Your task to perform on an android device: Do I have any events this weekend? Image 0: 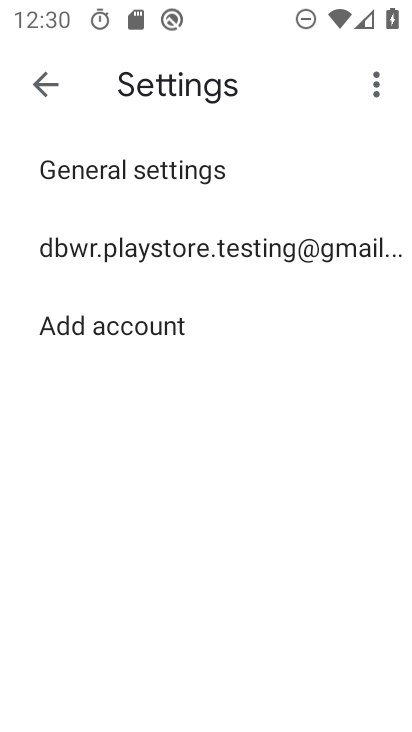
Step 0: press home button
Your task to perform on an android device: Do I have any events this weekend? Image 1: 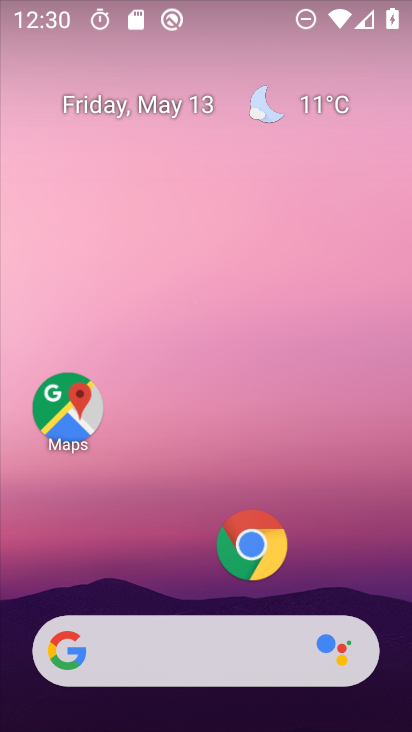
Step 1: drag from (199, 595) to (216, 67)
Your task to perform on an android device: Do I have any events this weekend? Image 2: 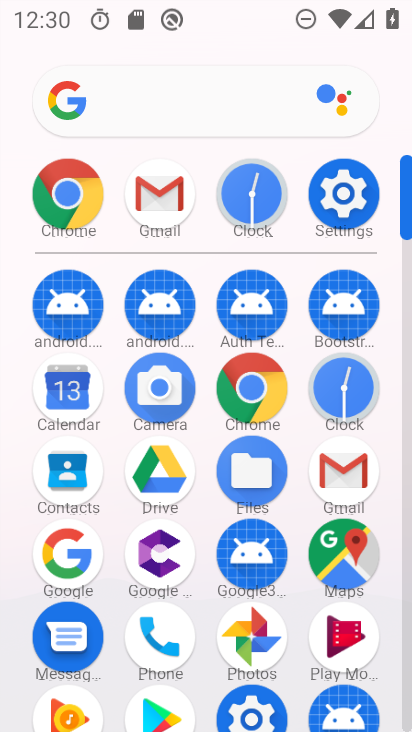
Step 2: click (67, 384)
Your task to perform on an android device: Do I have any events this weekend? Image 3: 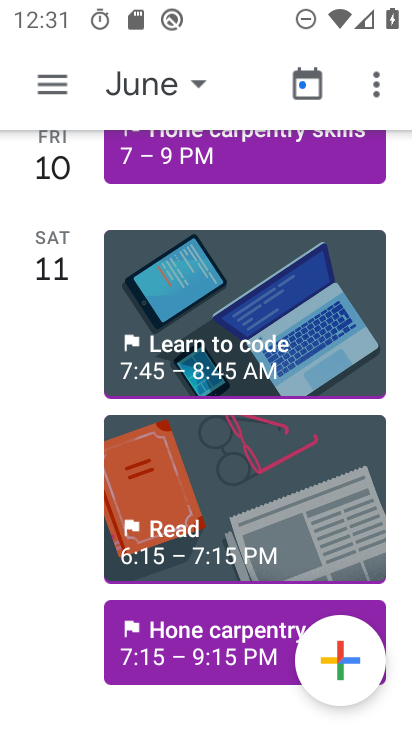
Step 3: click (47, 70)
Your task to perform on an android device: Do I have any events this weekend? Image 4: 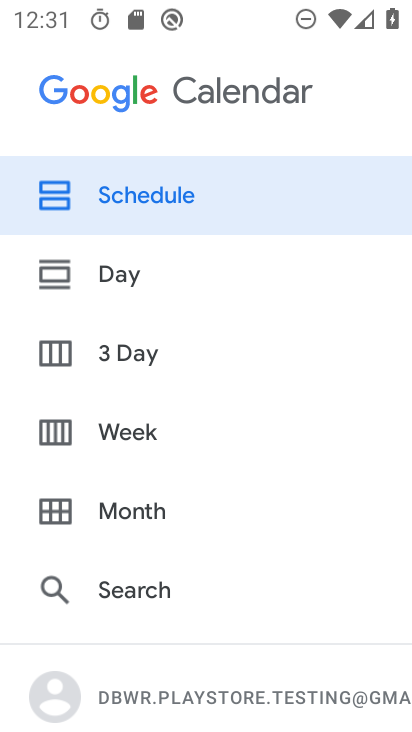
Step 4: click (81, 434)
Your task to perform on an android device: Do I have any events this weekend? Image 5: 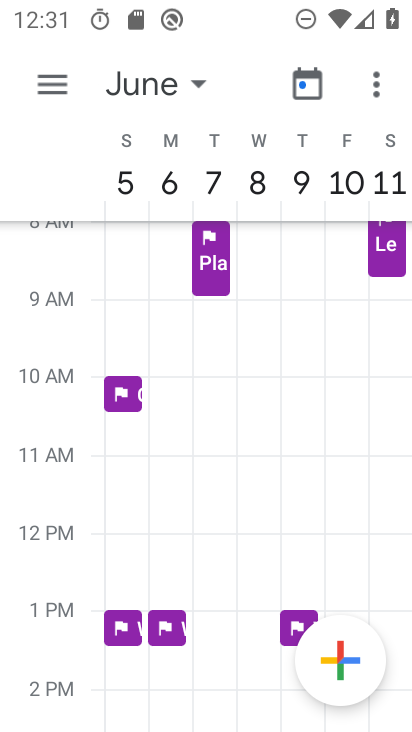
Step 5: click (196, 78)
Your task to perform on an android device: Do I have any events this weekend? Image 6: 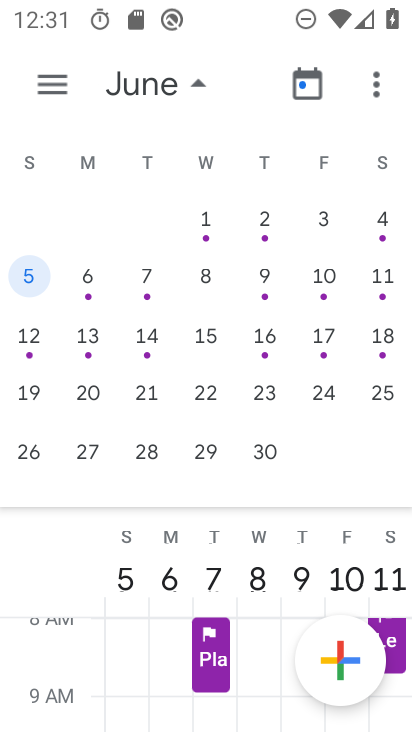
Step 6: drag from (25, 351) to (364, 362)
Your task to perform on an android device: Do I have any events this weekend? Image 7: 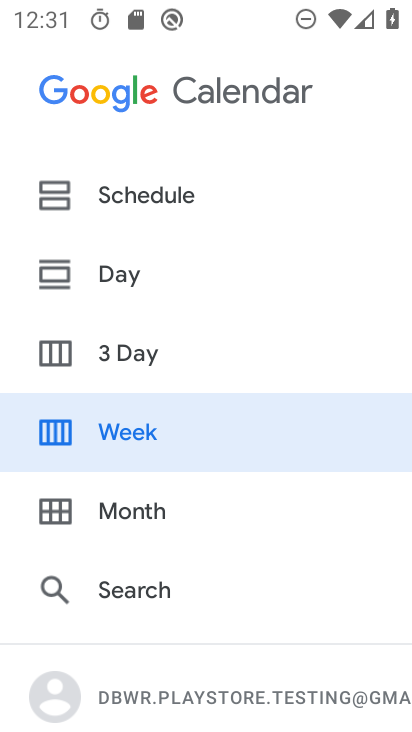
Step 7: click (106, 426)
Your task to perform on an android device: Do I have any events this weekend? Image 8: 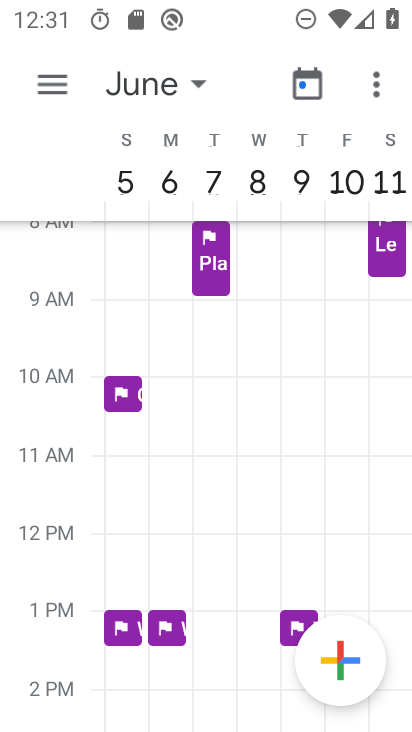
Step 8: click (199, 81)
Your task to perform on an android device: Do I have any events this weekend? Image 9: 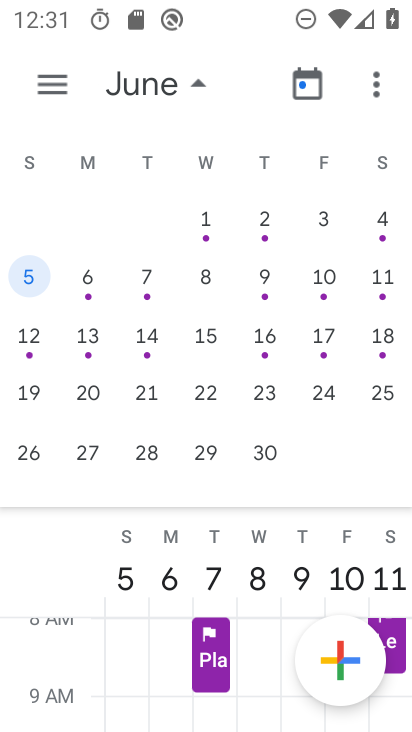
Step 9: drag from (84, 341) to (409, 358)
Your task to perform on an android device: Do I have any events this weekend? Image 10: 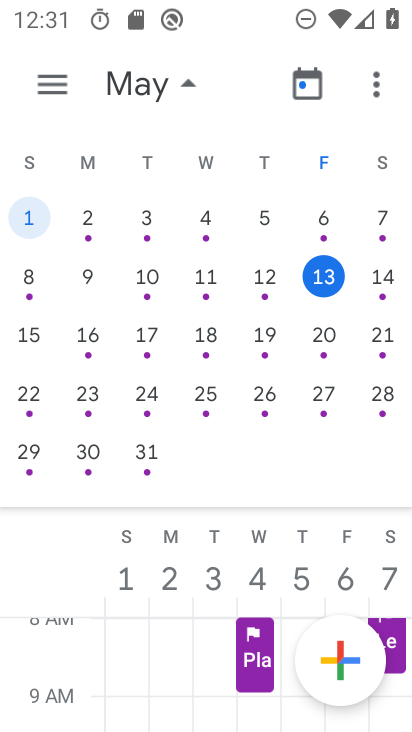
Step 10: click (319, 268)
Your task to perform on an android device: Do I have any events this weekend? Image 11: 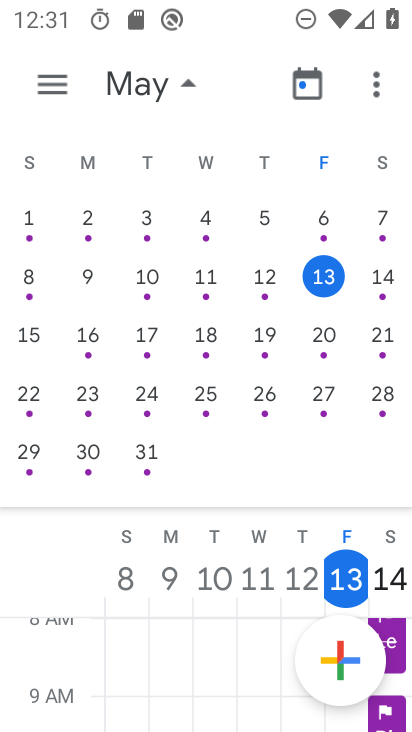
Step 11: click (186, 74)
Your task to perform on an android device: Do I have any events this weekend? Image 12: 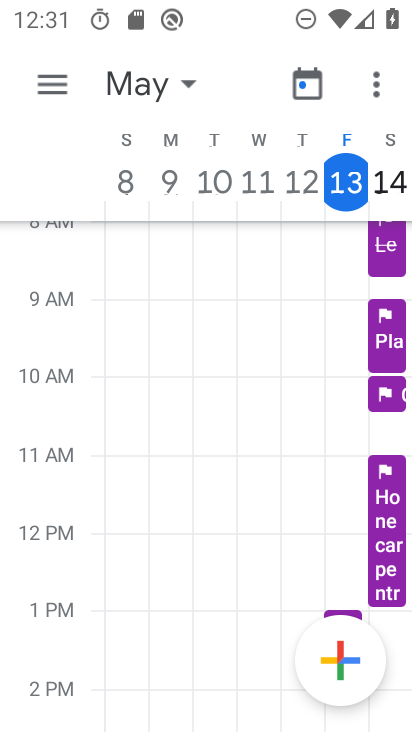
Step 12: click (340, 509)
Your task to perform on an android device: Do I have any events this weekend? Image 13: 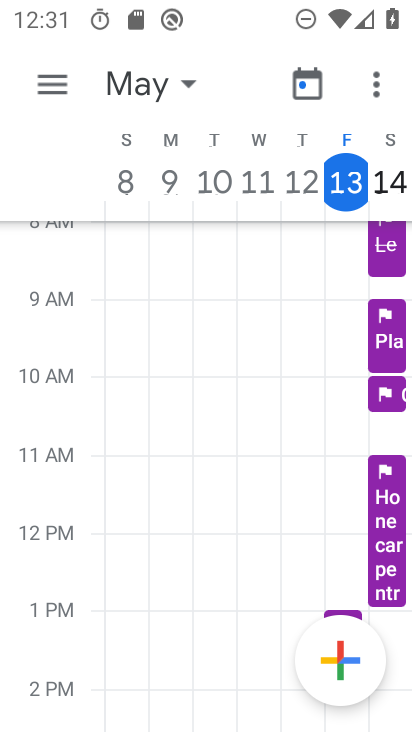
Step 13: click (350, 177)
Your task to perform on an android device: Do I have any events this weekend? Image 14: 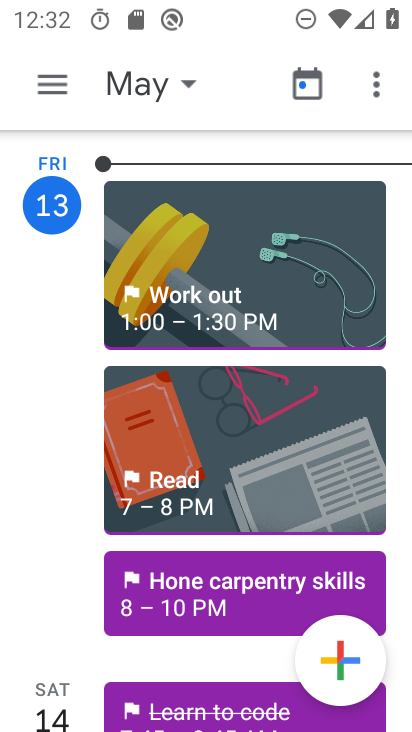
Step 14: task complete